Your task to perform on an android device: toggle location history Image 0: 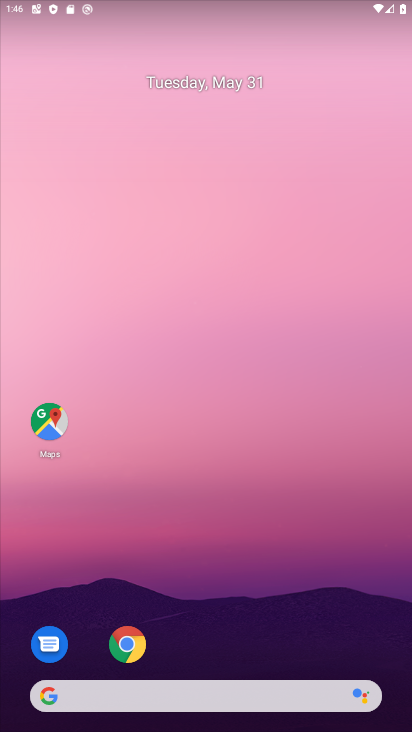
Step 0: drag from (383, 680) to (323, 203)
Your task to perform on an android device: toggle location history Image 1: 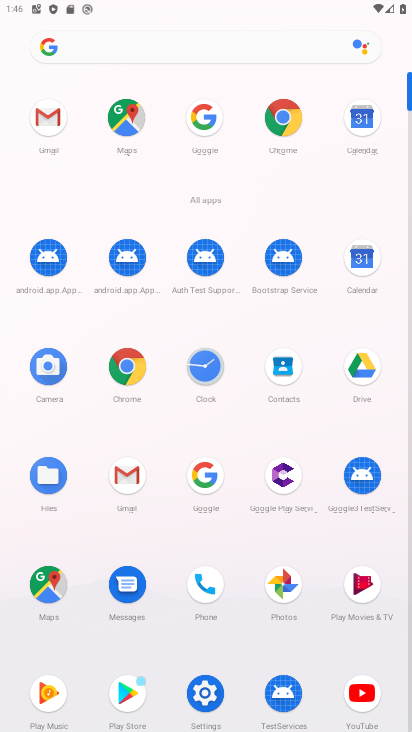
Step 1: click (213, 697)
Your task to perform on an android device: toggle location history Image 2: 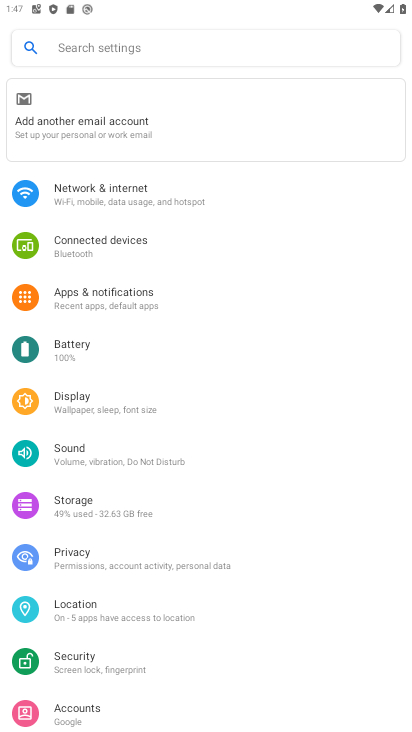
Step 2: click (85, 600)
Your task to perform on an android device: toggle location history Image 3: 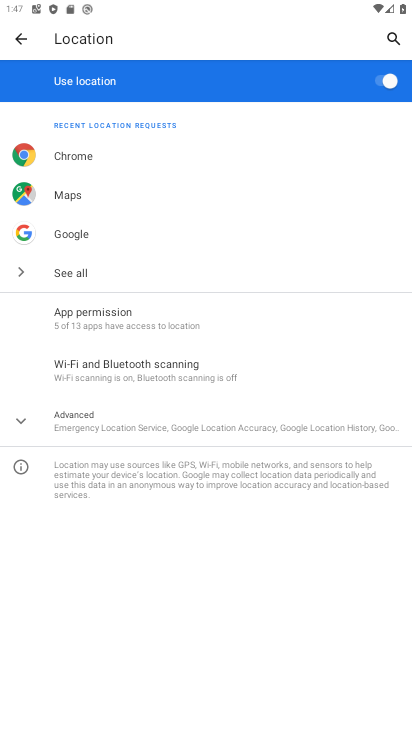
Step 3: click (33, 413)
Your task to perform on an android device: toggle location history Image 4: 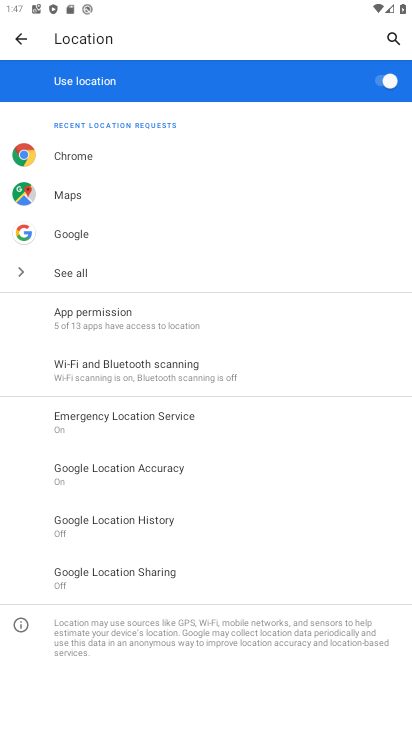
Step 4: click (139, 523)
Your task to perform on an android device: toggle location history Image 5: 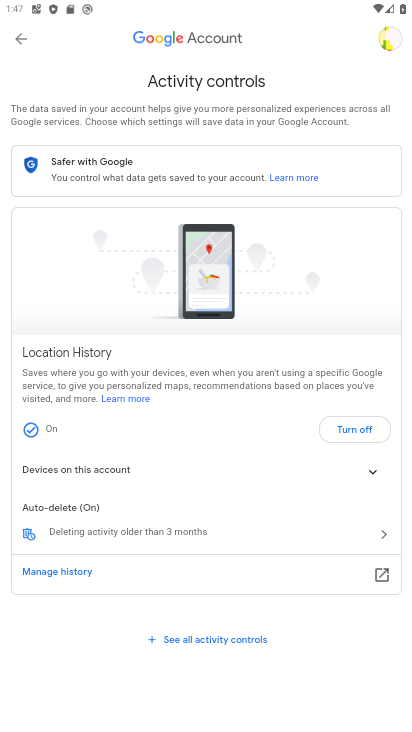
Step 5: drag from (237, 533) to (251, 330)
Your task to perform on an android device: toggle location history Image 6: 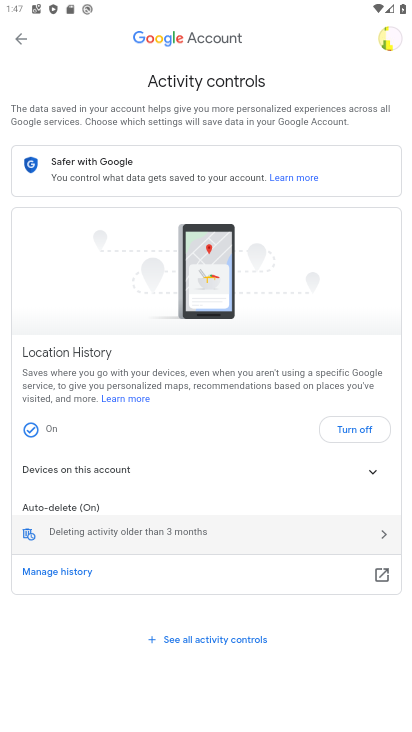
Step 6: click (343, 431)
Your task to perform on an android device: toggle location history Image 7: 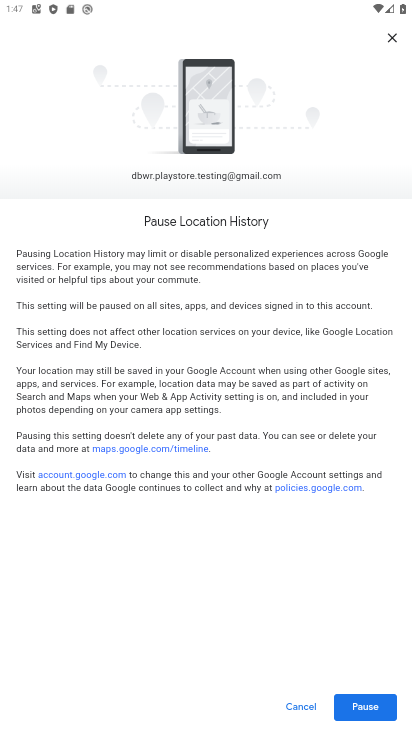
Step 7: click (352, 714)
Your task to perform on an android device: toggle location history Image 8: 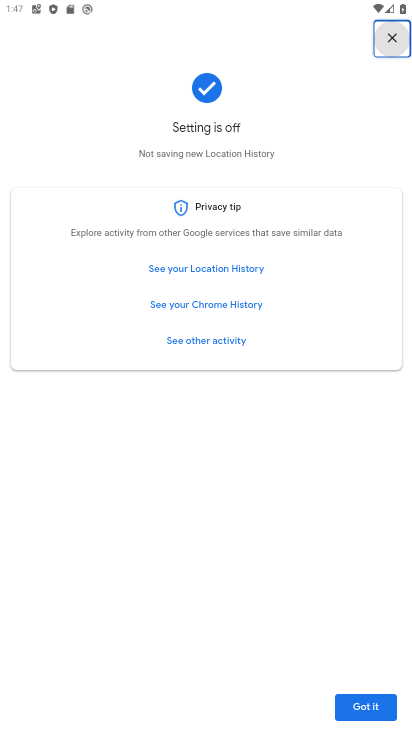
Step 8: click (363, 710)
Your task to perform on an android device: toggle location history Image 9: 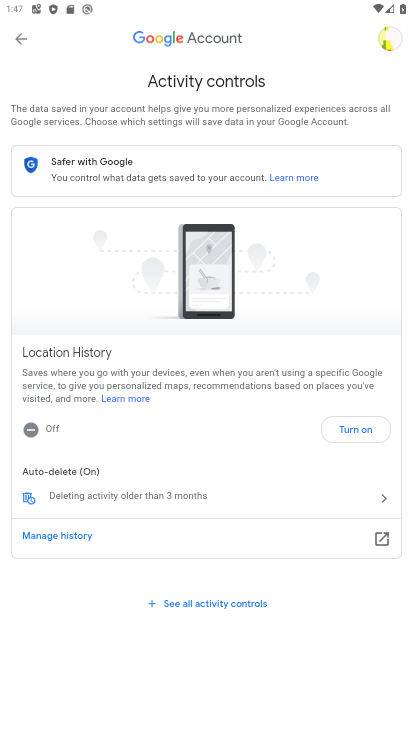
Step 9: click (19, 40)
Your task to perform on an android device: toggle location history Image 10: 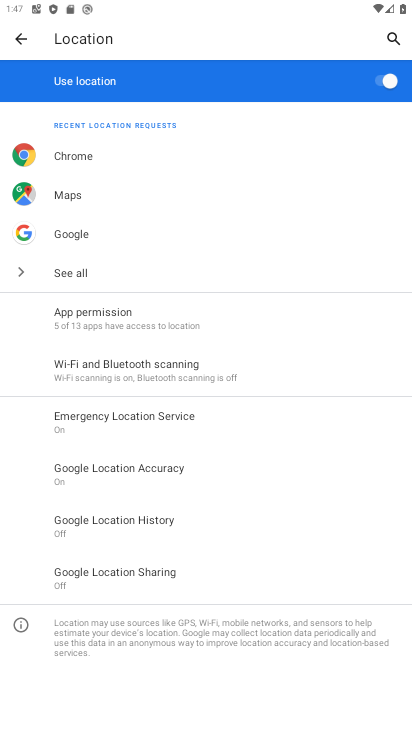
Step 10: task complete